Your task to perform on an android device: Open Chrome and go to the settings page Image 0: 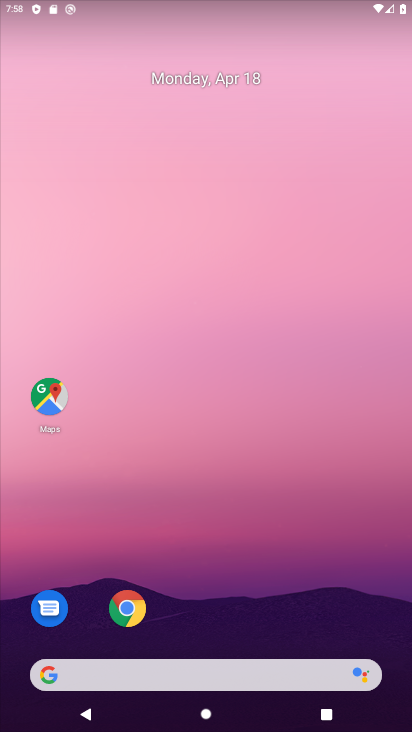
Step 0: click (129, 607)
Your task to perform on an android device: Open Chrome and go to the settings page Image 1: 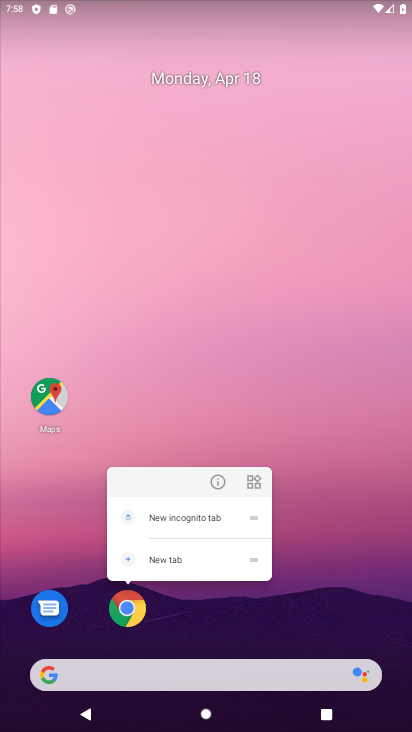
Step 1: click (126, 607)
Your task to perform on an android device: Open Chrome and go to the settings page Image 2: 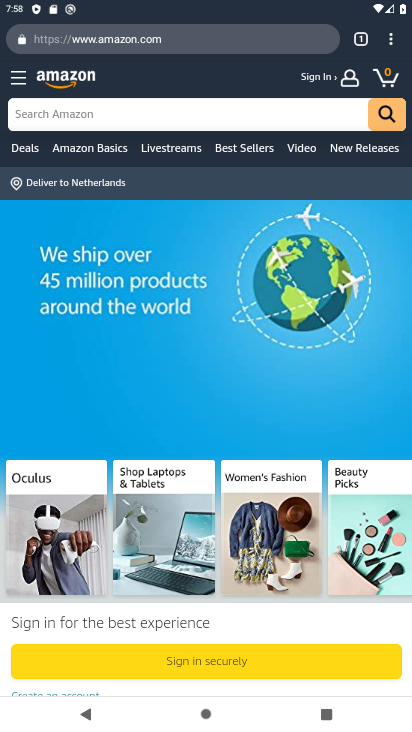
Step 2: click (391, 38)
Your task to perform on an android device: Open Chrome and go to the settings page Image 3: 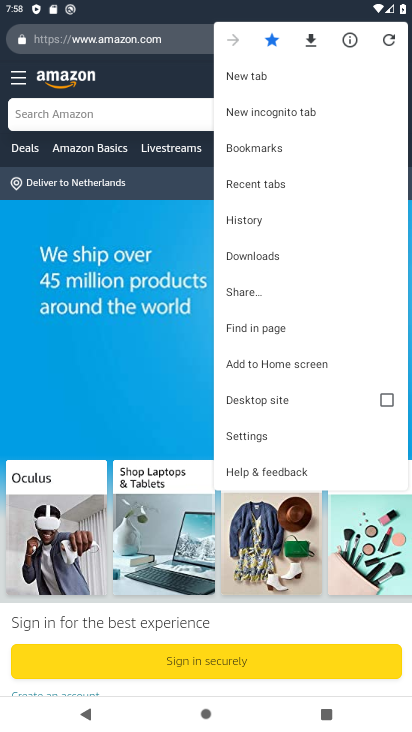
Step 3: click (257, 435)
Your task to perform on an android device: Open Chrome and go to the settings page Image 4: 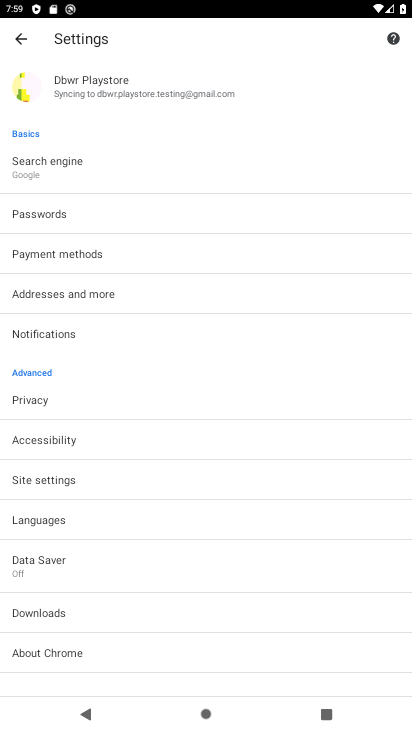
Step 4: task complete